Your task to perform on an android device: What's on my calendar today? Image 0: 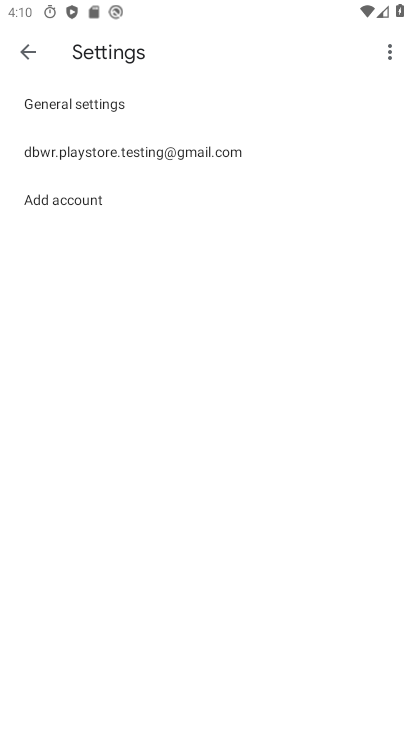
Step 0: click (271, 729)
Your task to perform on an android device: What's on my calendar today? Image 1: 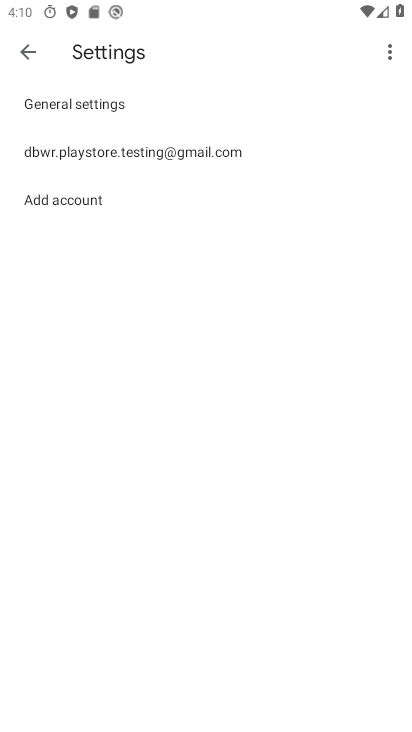
Step 1: press home button
Your task to perform on an android device: What's on my calendar today? Image 2: 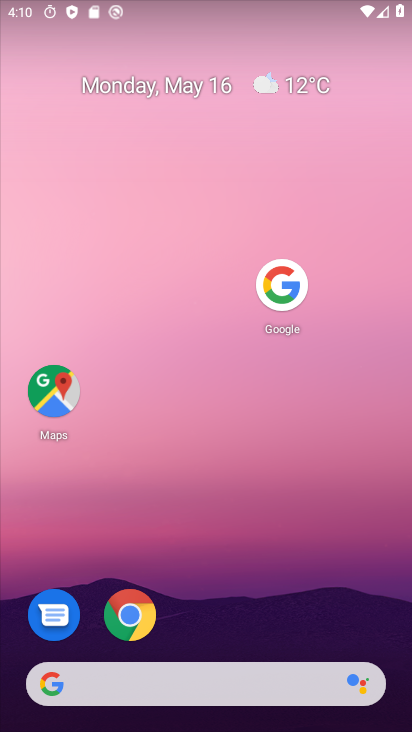
Step 2: drag from (212, 655) to (201, 14)
Your task to perform on an android device: What's on my calendar today? Image 3: 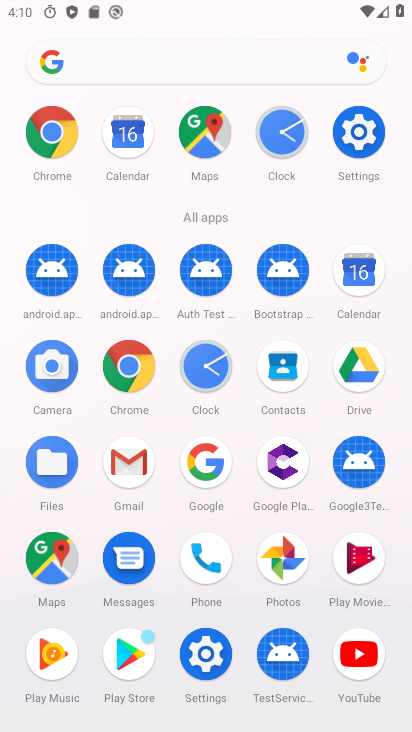
Step 3: click (364, 274)
Your task to perform on an android device: What's on my calendar today? Image 4: 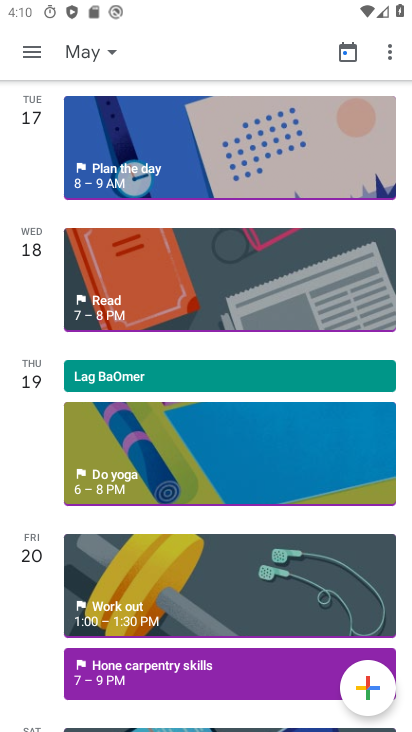
Step 4: click (16, 50)
Your task to perform on an android device: What's on my calendar today? Image 5: 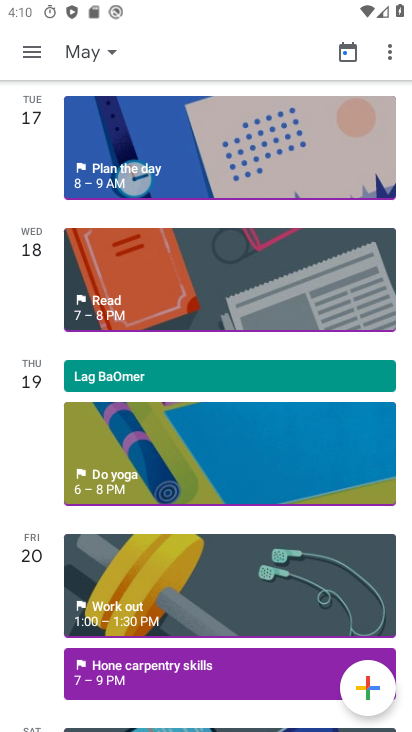
Step 5: click (346, 62)
Your task to perform on an android device: What's on my calendar today? Image 6: 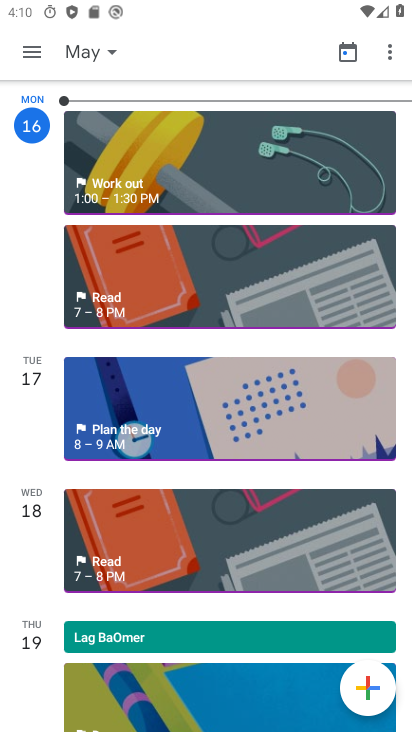
Step 6: task complete